Your task to perform on an android device: toggle data saver in the chrome app Image 0: 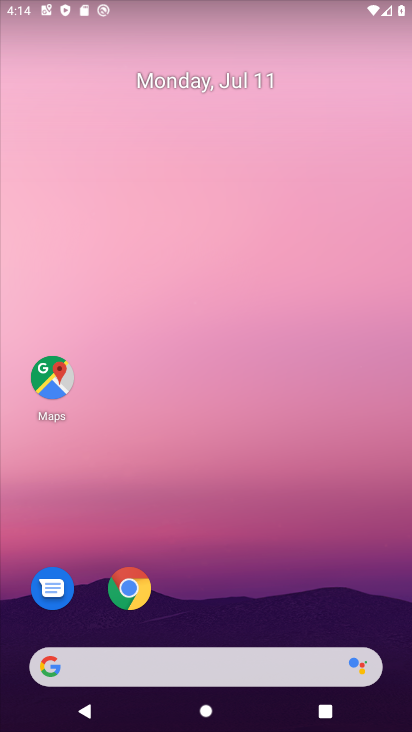
Step 0: drag from (343, 625) to (350, 106)
Your task to perform on an android device: toggle data saver in the chrome app Image 1: 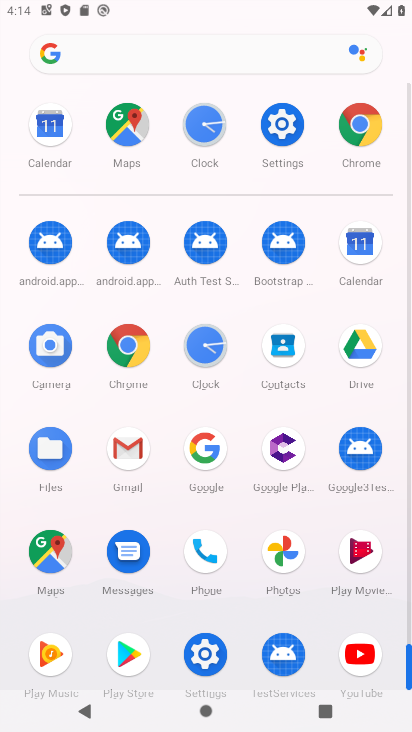
Step 1: click (130, 348)
Your task to perform on an android device: toggle data saver in the chrome app Image 2: 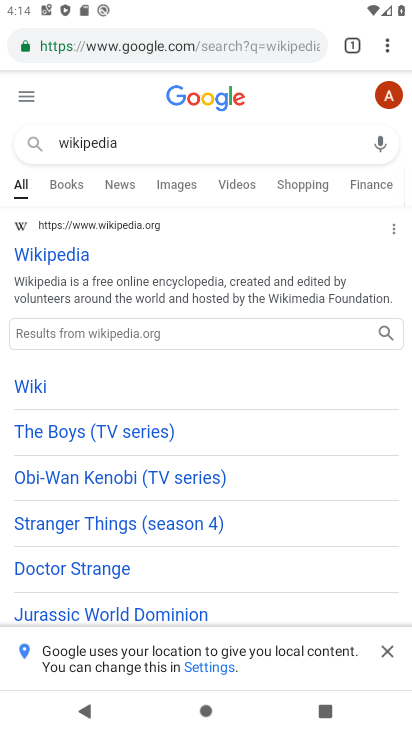
Step 2: click (386, 51)
Your task to perform on an android device: toggle data saver in the chrome app Image 3: 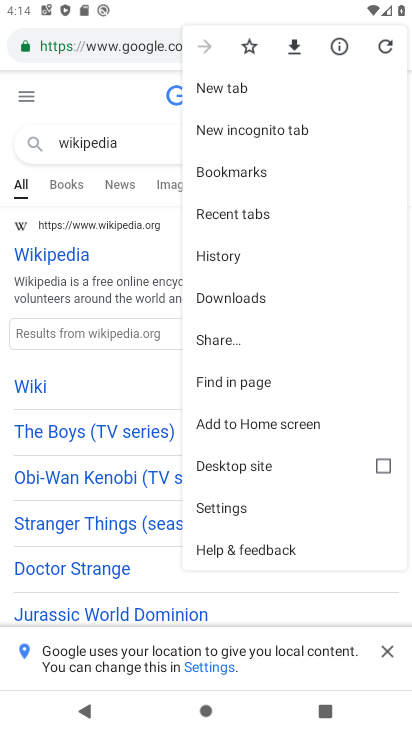
Step 3: click (290, 511)
Your task to perform on an android device: toggle data saver in the chrome app Image 4: 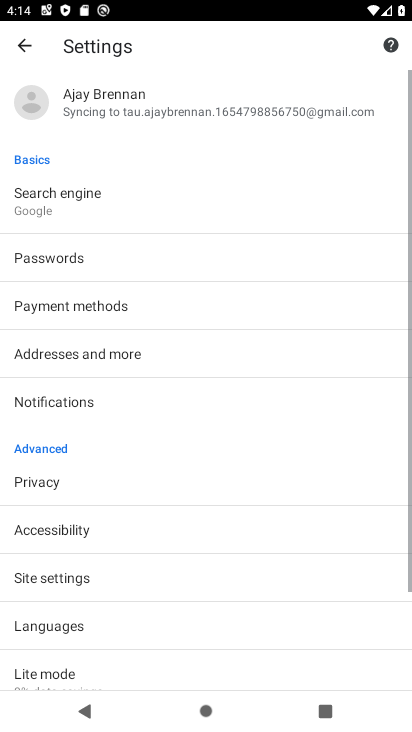
Step 4: drag from (290, 510) to (307, 405)
Your task to perform on an android device: toggle data saver in the chrome app Image 5: 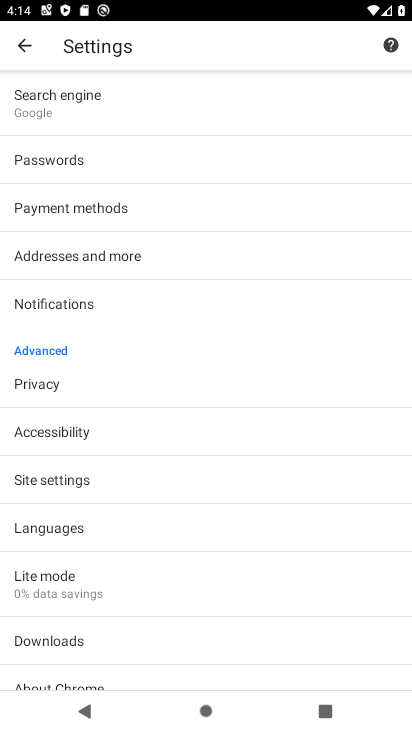
Step 5: drag from (281, 521) to (275, 351)
Your task to perform on an android device: toggle data saver in the chrome app Image 6: 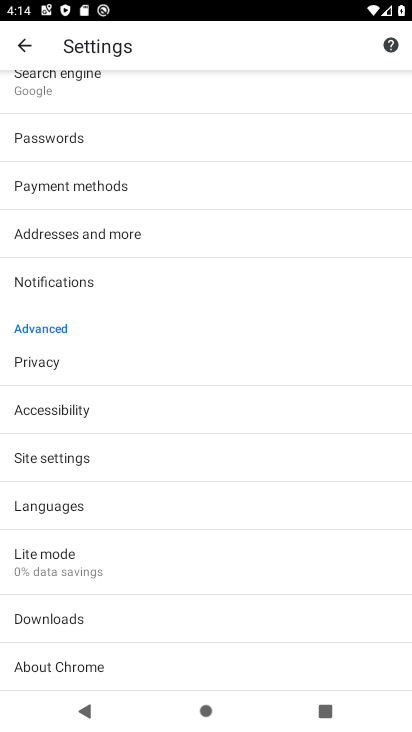
Step 6: click (261, 553)
Your task to perform on an android device: toggle data saver in the chrome app Image 7: 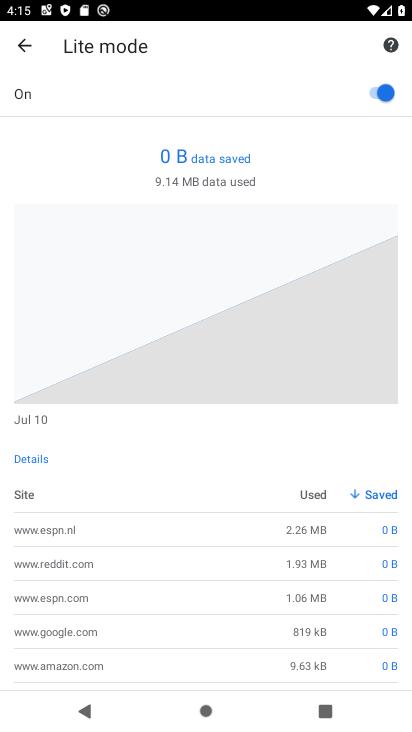
Step 7: task complete